Your task to perform on an android device: Open privacy settings Image 0: 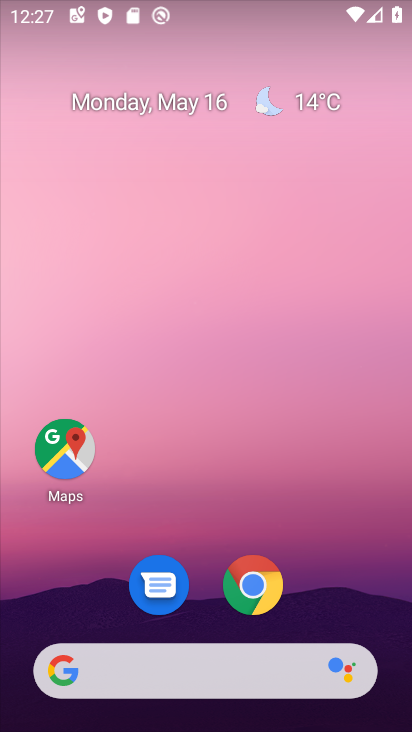
Step 0: drag from (240, 468) to (287, 10)
Your task to perform on an android device: Open privacy settings Image 1: 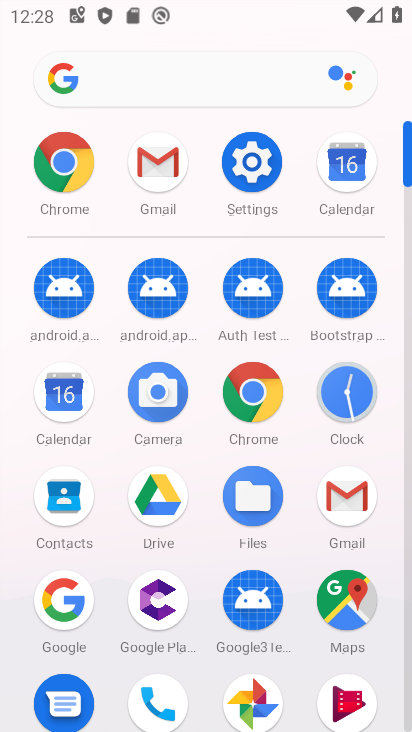
Step 1: click (248, 158)
Your task to perform on an android device: Open privacy settings Image 2: 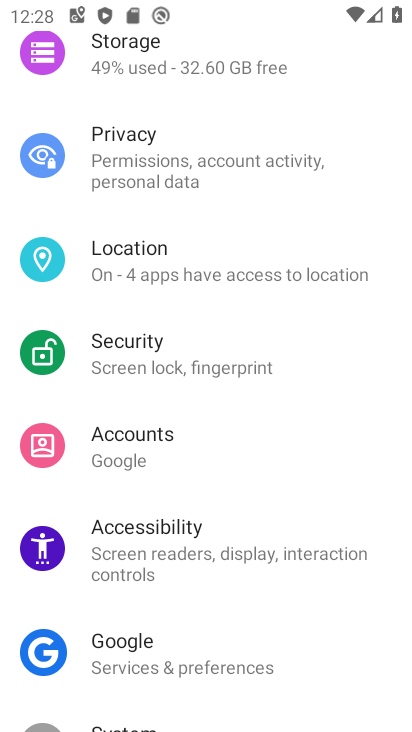
Step 2: click (226, 156)
Your task to perform on an android device: Open privacy settings Image 3: 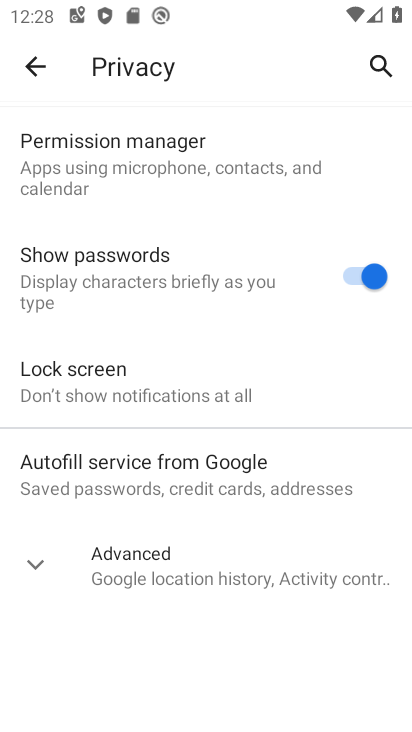
Step 3: task complete